Your task to perform on an android device: Open ESPN.com Image 0: 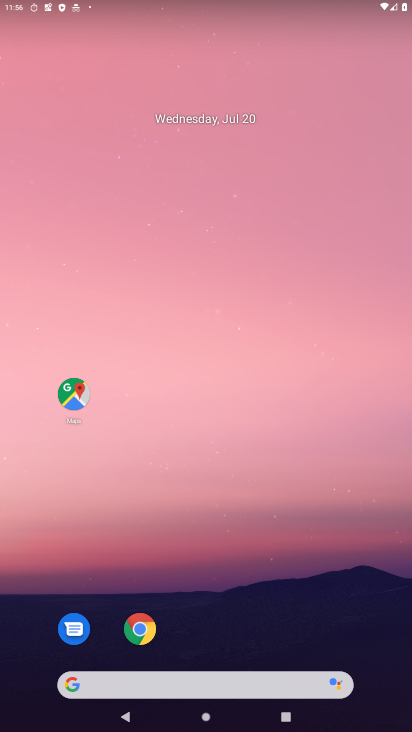
Step 0: drag from (121, 692) to (124, 108)
Your task to perform on an android device: Open ESPN.com Image 1: 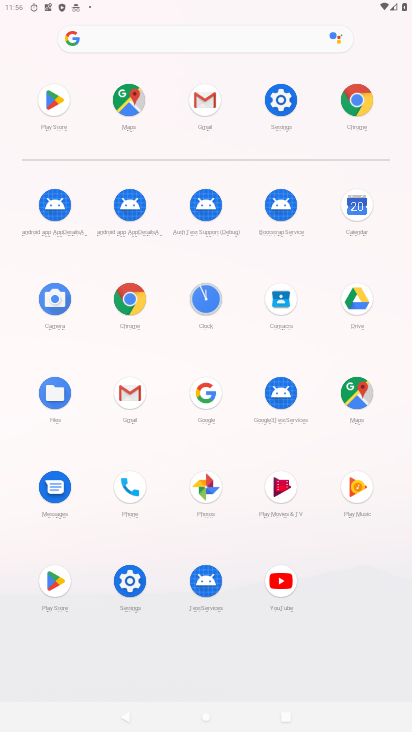
Step 1: click (132, 295)
Your task to perform on an android device: Open ESPN.com Image 2: 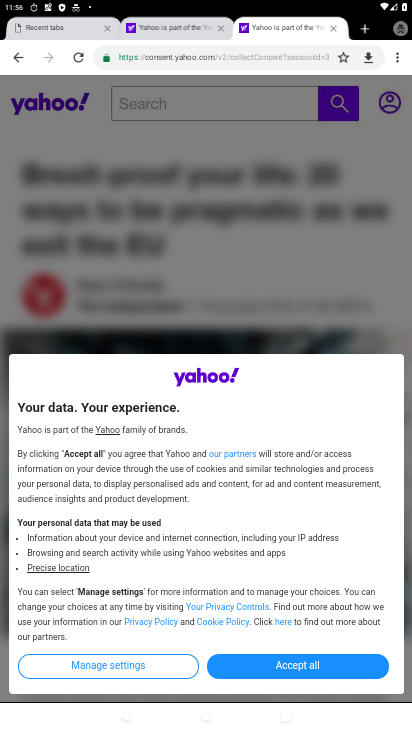
Step 2: drag from (396, 61) to (323, 55)
Your task to perform on an android device: Open ESPN.com Image 3: 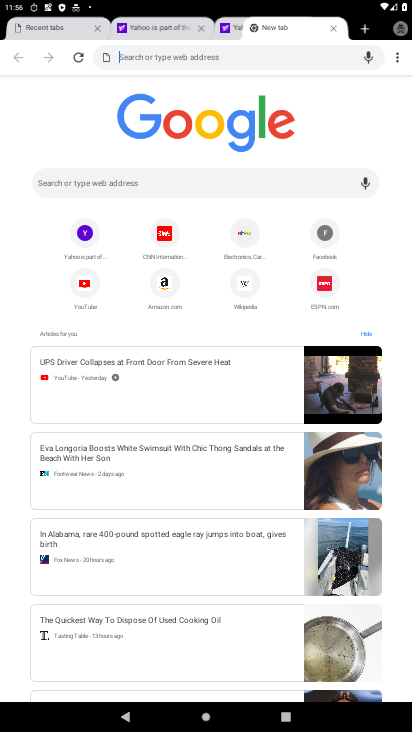
Step 3: click (327, 281)
Your task to perform on an android device: Open ESPN.com Image 4: 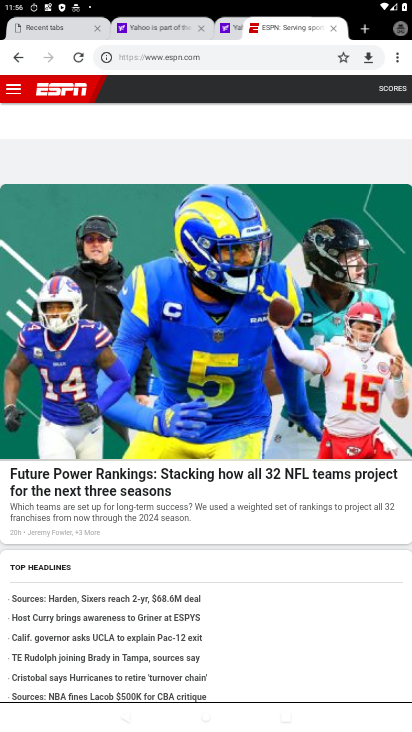
Step 4: task complete